Your task to perform on an android device: Open maps Image 0: 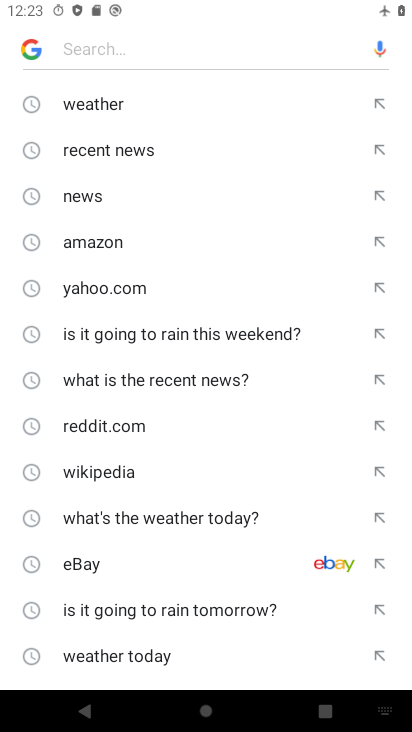
Step 0: press home button
Your task to perform on an android device: Open maps Image 1: 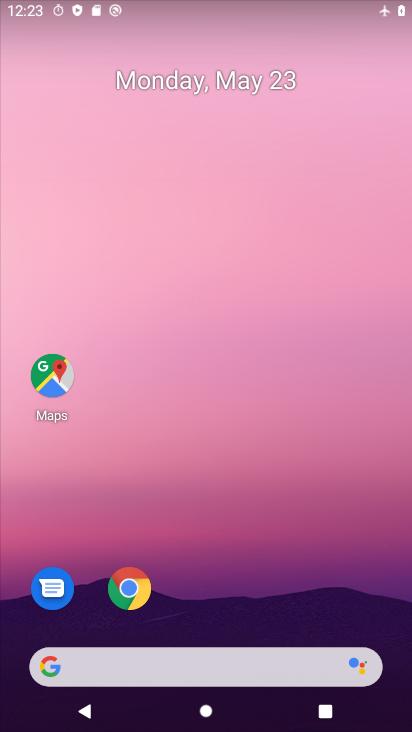
Step 1: drag from (226, 709) to (224, 159)
Your task to perform on an android device: Open maps Image 2: 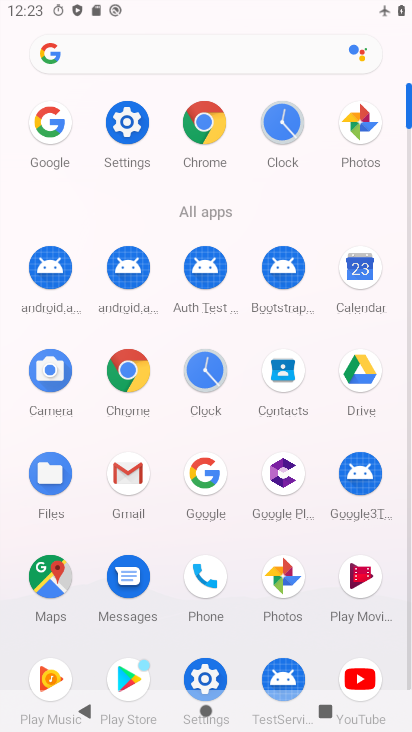
Step 2: click (59, 578)
Your task to perform on an android device: Open maps Image 3: 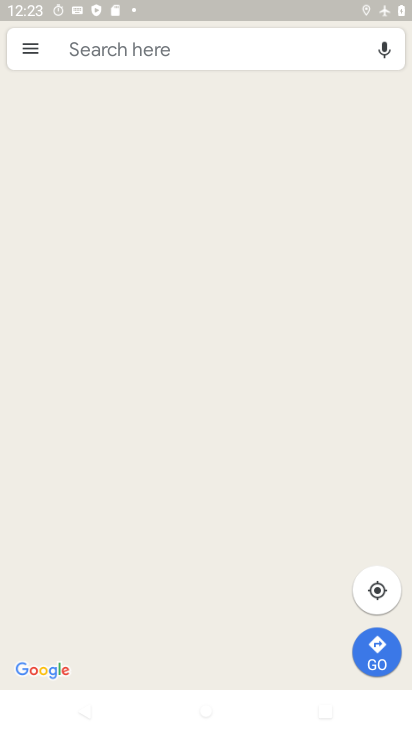
Step 3: task complete